Your task to perform on an android device: toggle priority inbox in the gmail app Image 0: 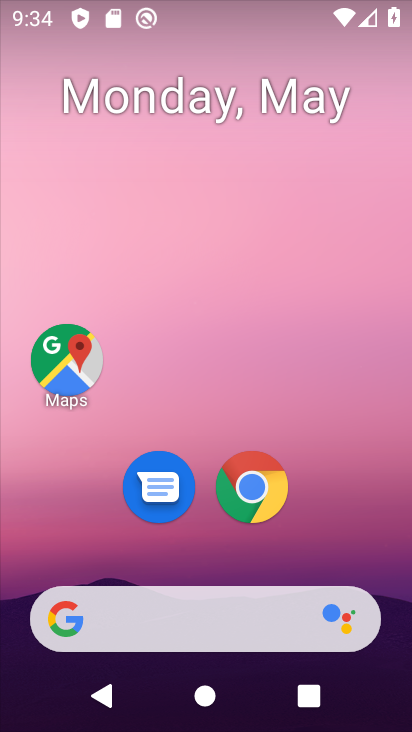
Step 0: drag from (314, 551) to (394, 12)
Your task to perform on an android device: toggle priority inbox in the gmail app Image 1: 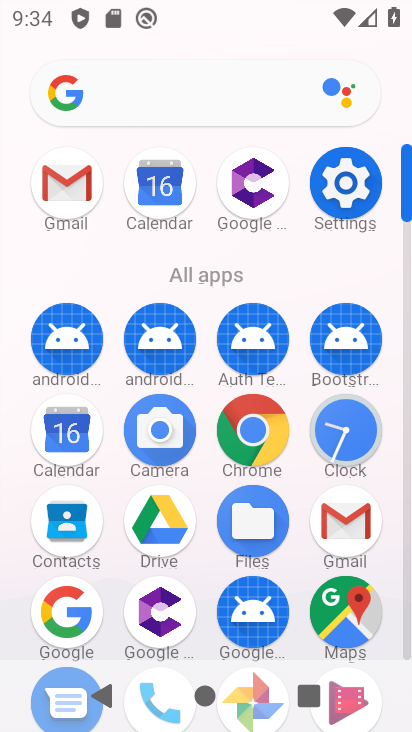
Step 1: click (359, 503)
Your task to perform on an android device: toggle priority inbox in the gmail app Image 2: 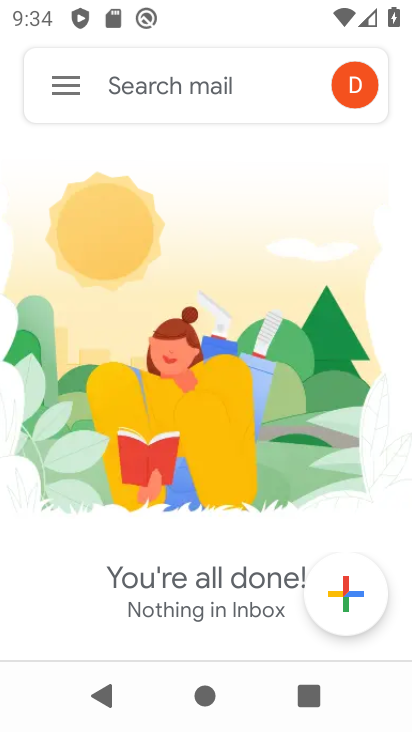
Step 2: click (70, 100)
Your task to perform on an android device: toggle priority inbox in the gmail app Image 3: 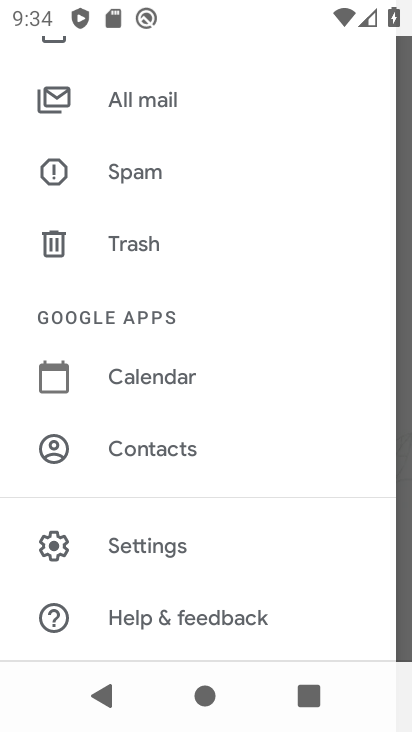
Step 3: click (128, 539)
Your task to perform on an android device: toggle priority inbox in the gmail app Image 4: 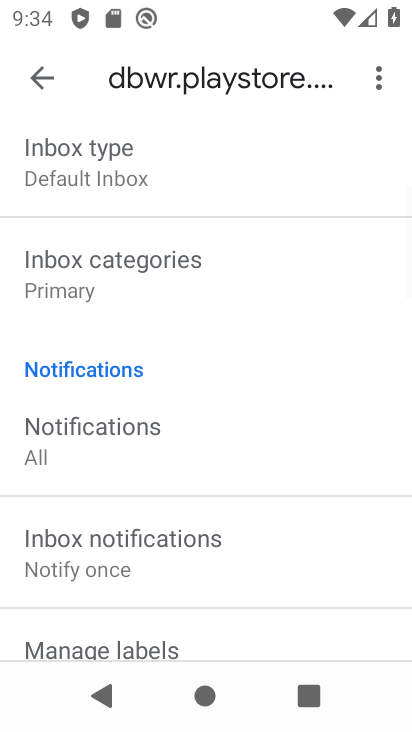
Step 4: click (110, 176)
Your task to perform on an android device: toggle priority inbox in the gmail app Image 5: 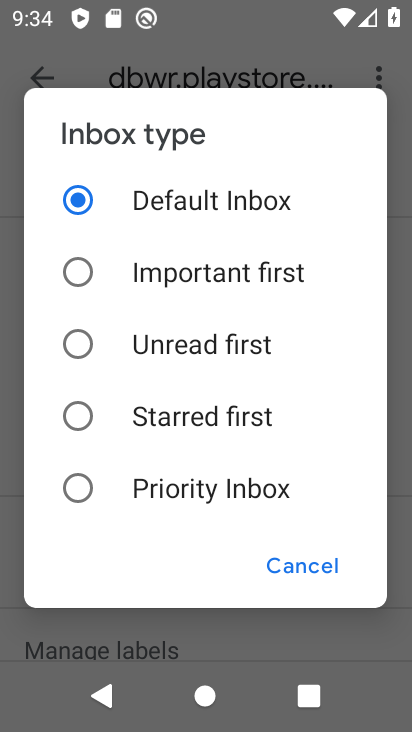
Step 5: click (157, 500)
Your task to perform on an android device: toggle priority inbox in the gmail app Image 6: 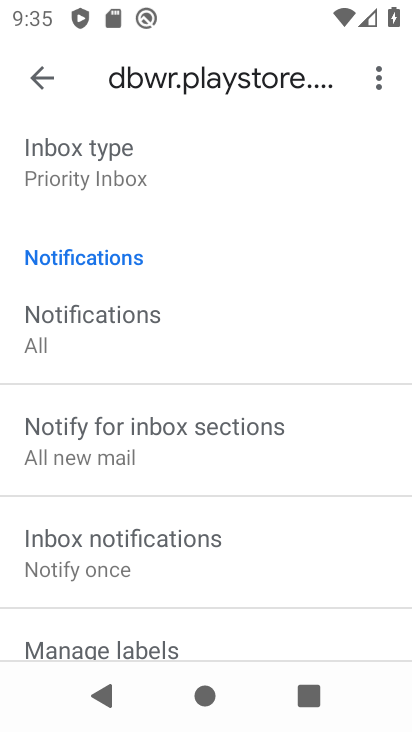
Step 6: task complete